Your task to perform on an android device: Open Amazon Image 0: 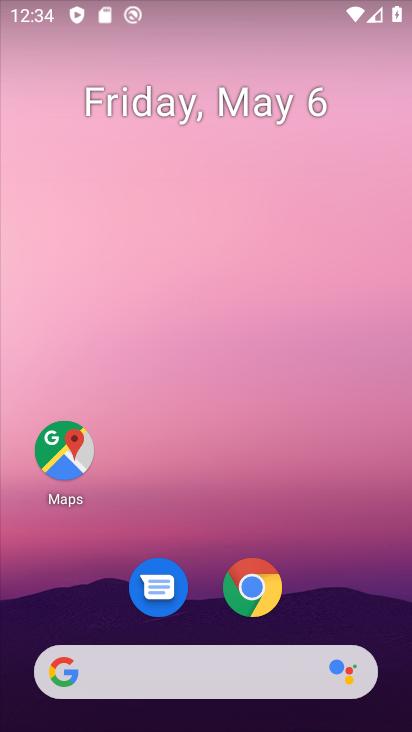
Step 0: click (261, 580)
Your task to perform on an android device: Open Amazon Image 1: 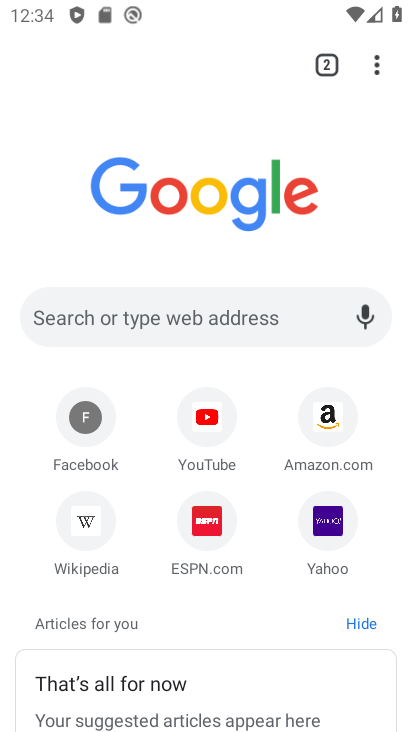
Step 1: click (328, 420)
Your task to perform on an android device: Open Amazon Image 2: 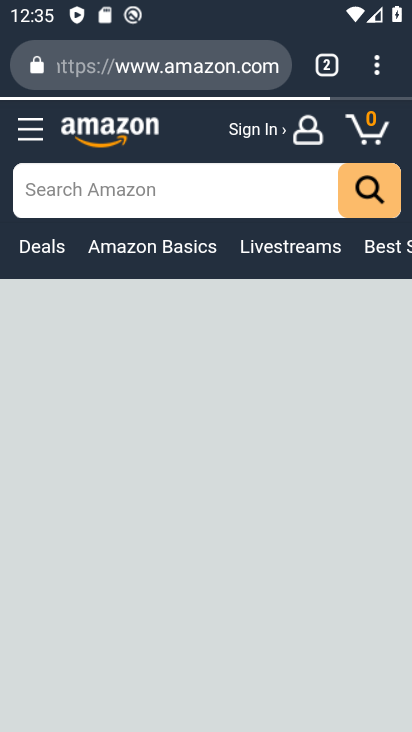
Step 2: task complete